Your task to perform on an android device: What's the weather going to be this weekend? Image 0: 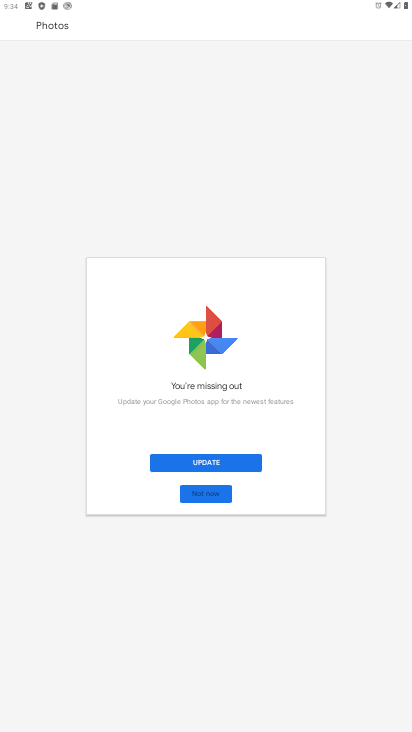
Step 0: press back button
Your task to perform on an android device: What's the weather going to be this weekend? Image 1: 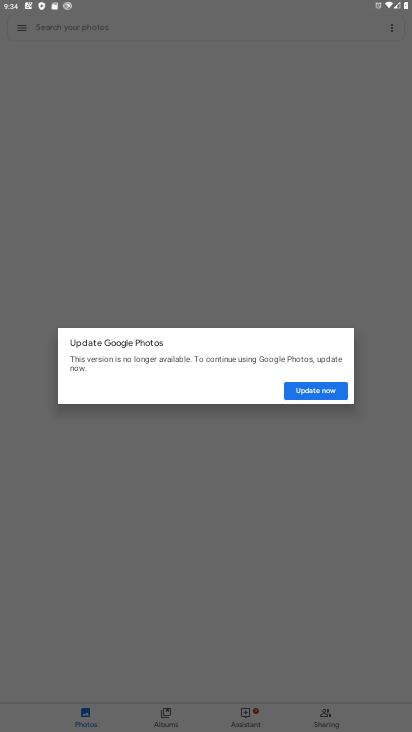
Step 1: press back button
Your task to perform on an android device: What's the weather going to be this weekend? Image 2: 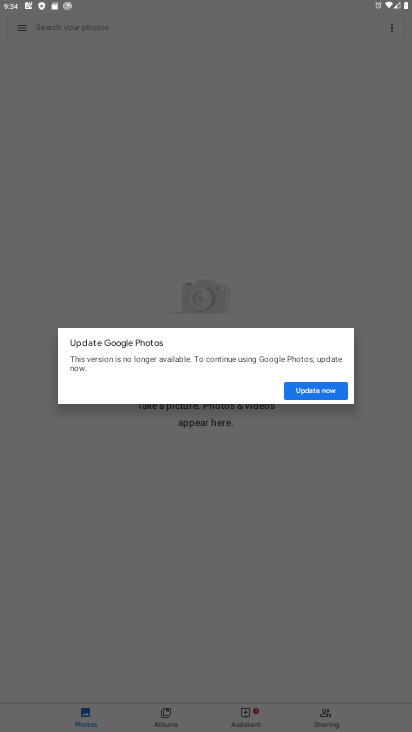
Step 2: press home button
Your task to perform on an android device: What's the weather going to be this weekend? Image 3: 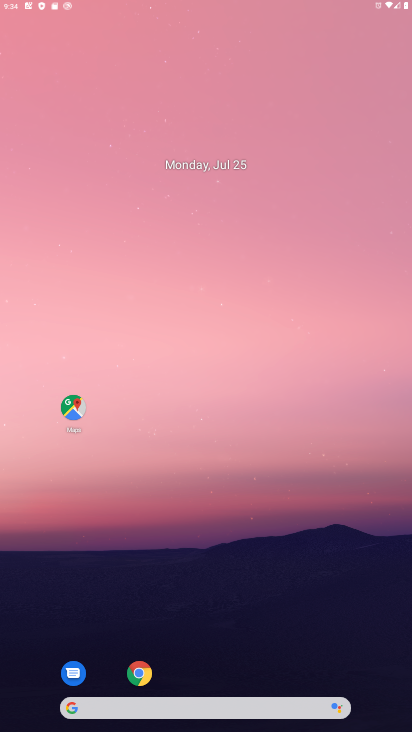
Step 3: press home button
Your task to perform on an android device: What's the weather going to be this weekend? Image 4: 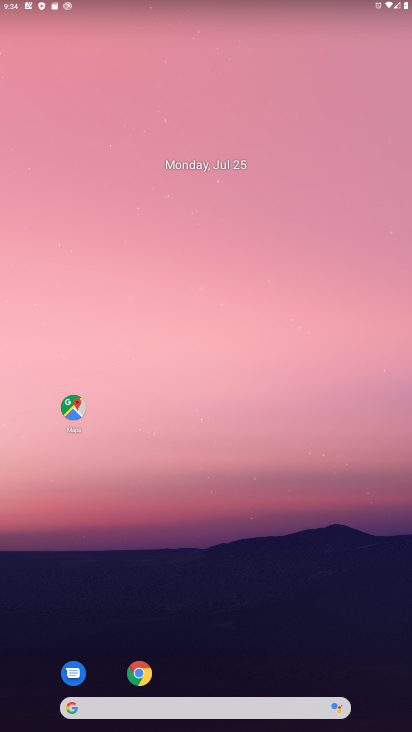
Step 4: click (180, 698)
Your task to perform on an android device: What's the weather going to be this weekend? Image 5: 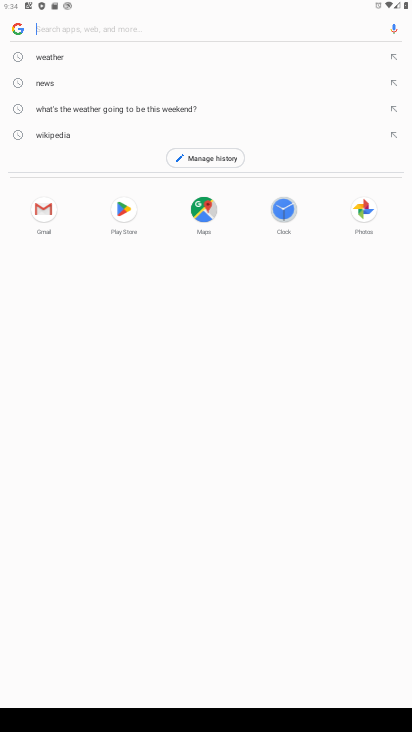
Step 5: click (36, 58)
Your task to perform on an android device: What's the weather going to be this weekend? Image 6: 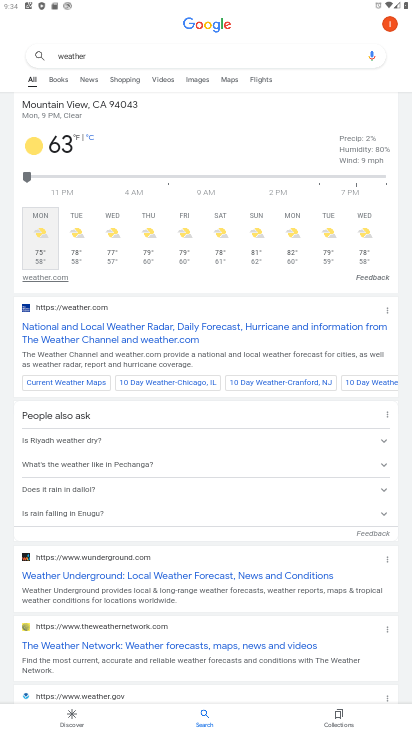
Step 6: task complete